Your task to perform on an android device: Show the shopping cart on ebay.com. Image 0: 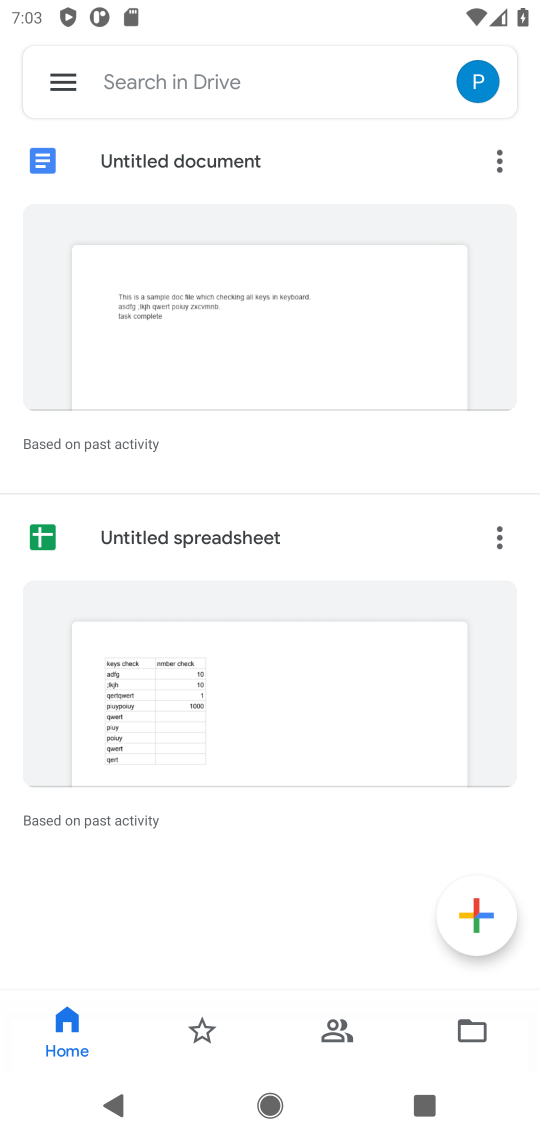
Step 0: press home button
Your task to perform on an android device: Show the shopping cart on ebay.com. Image 1: 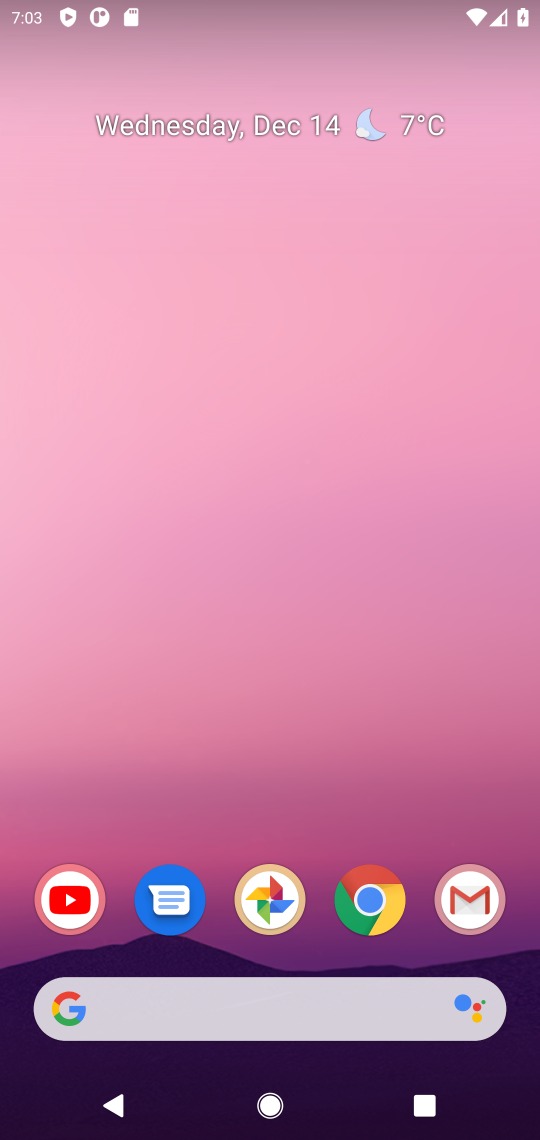
Step 1: click (233, 1015)
Your task to perform on an android device: Show the shopping cart on ebay.com. Image 2: 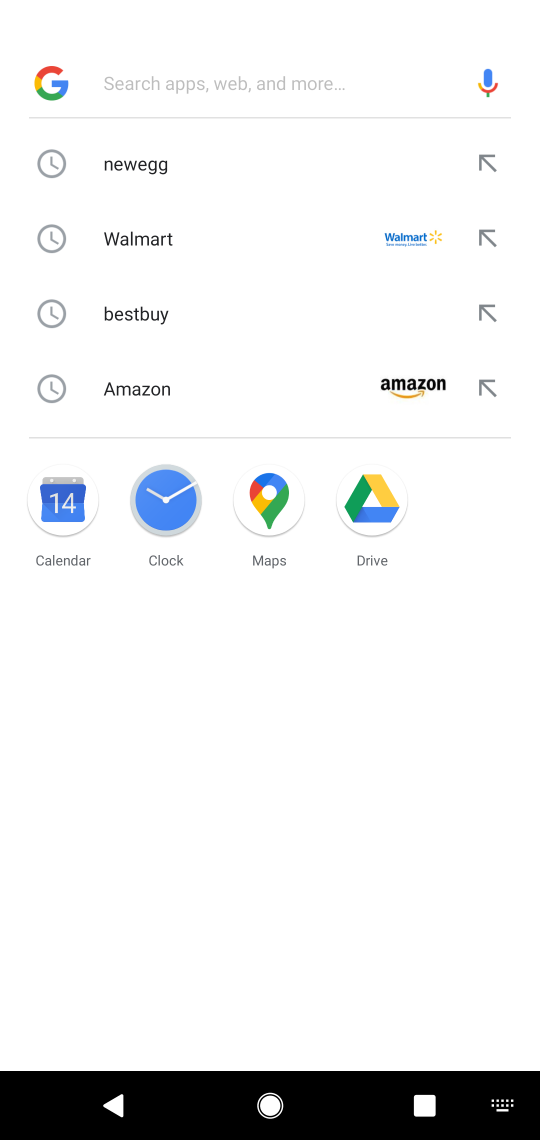
Step 2: type " ebay.com"
Your task to perform on an android device: Show the shopping cart on ebay.com. Image 3: 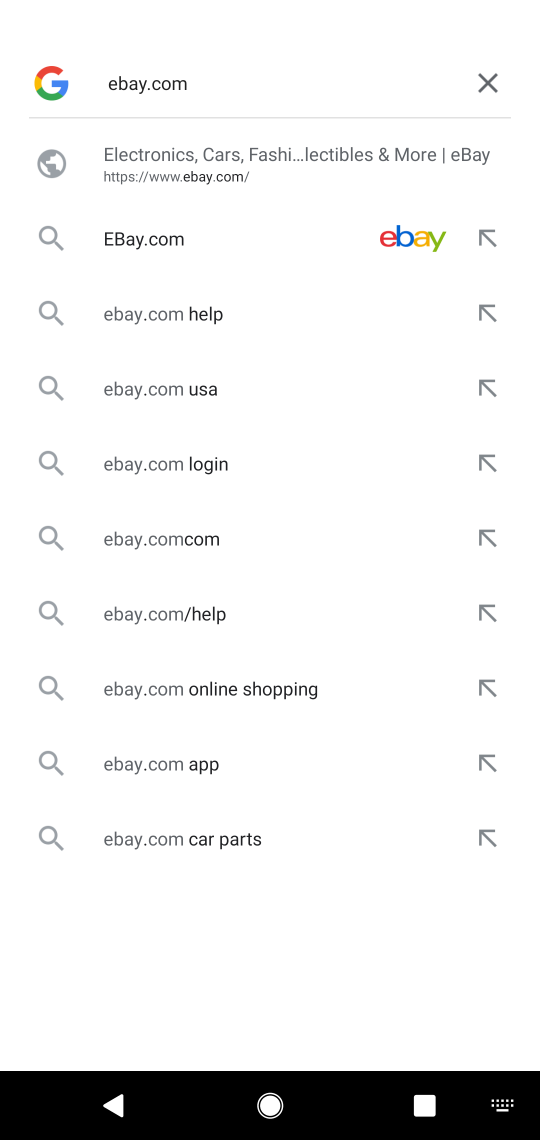
Step 3: click (183, 251)
Your task to perform on an android device: Show the shopping cart on ebay.com. Image 4: 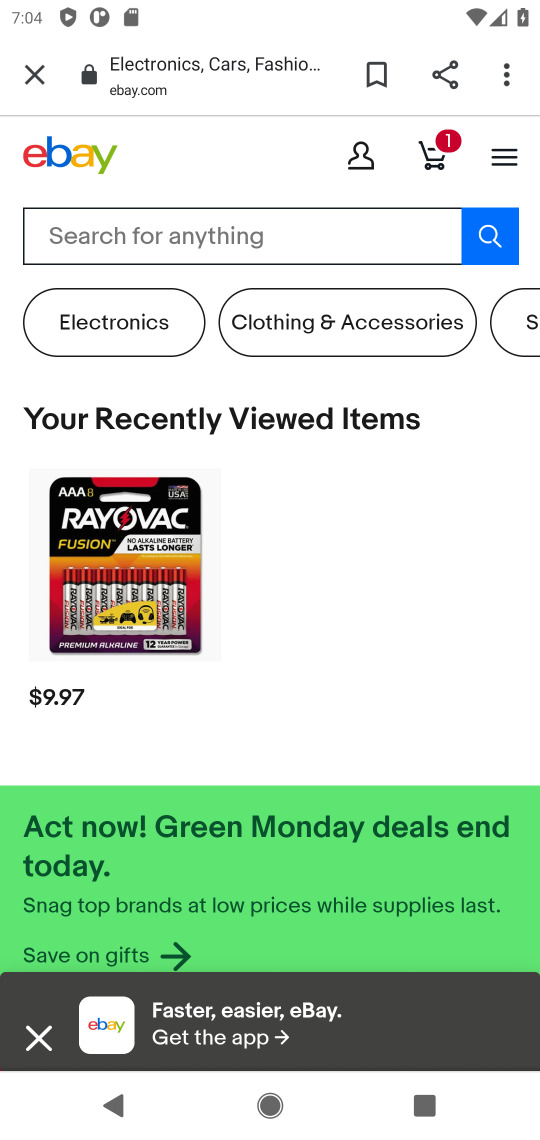
Step 4: click (439, 147)
Your task to perform on an android device: Show the shopping cart on ebay.com. Image 5: 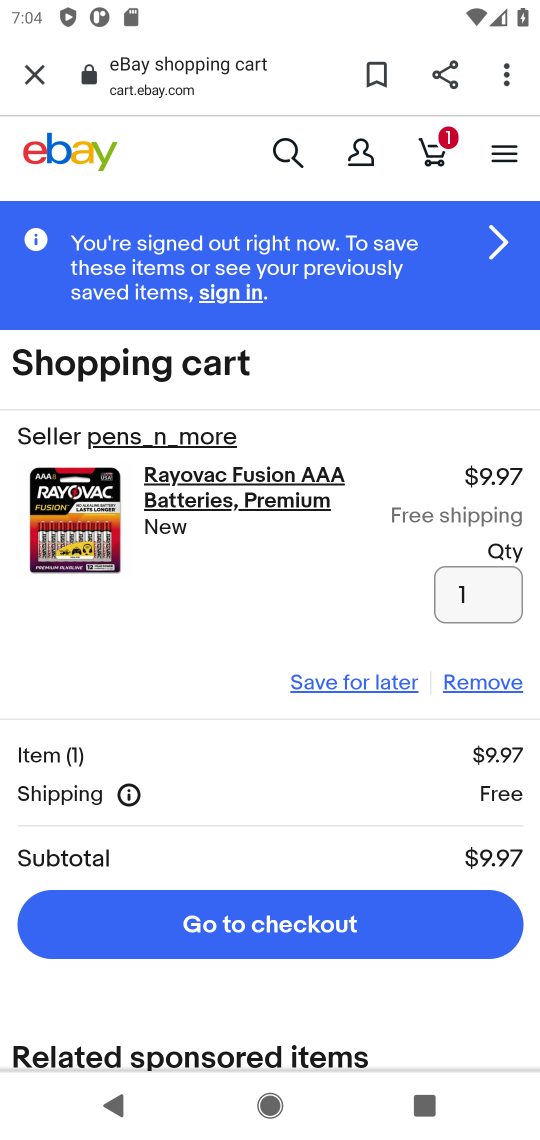
Step 5: task complete